Your task to perform on an android device: Search for Mexican restaurants on Maps Image 0: 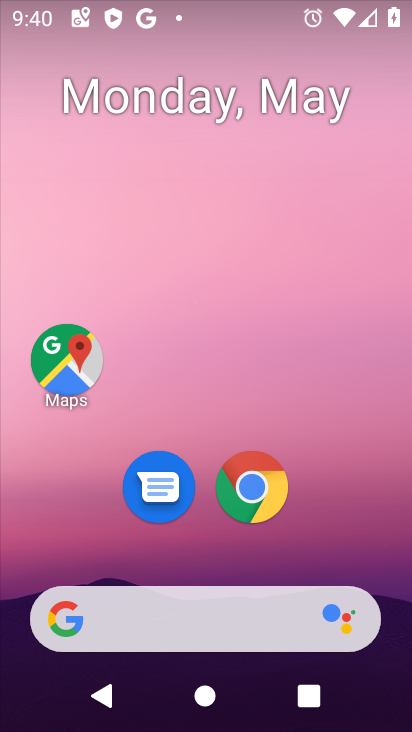
Step 0: click (74, 369)
Your task to perform on an android device: Search for Mexican restaurants on Maps Image 1: 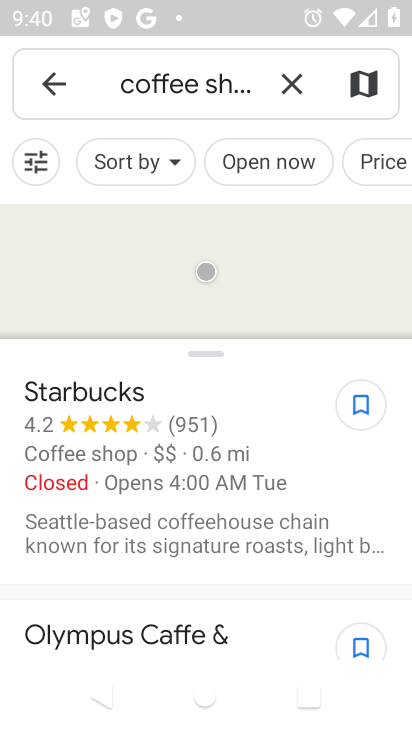
Step 1: click (289, 80)
Your task to perform on an android device: Search for Mexican restaurants on Maps Image 2: 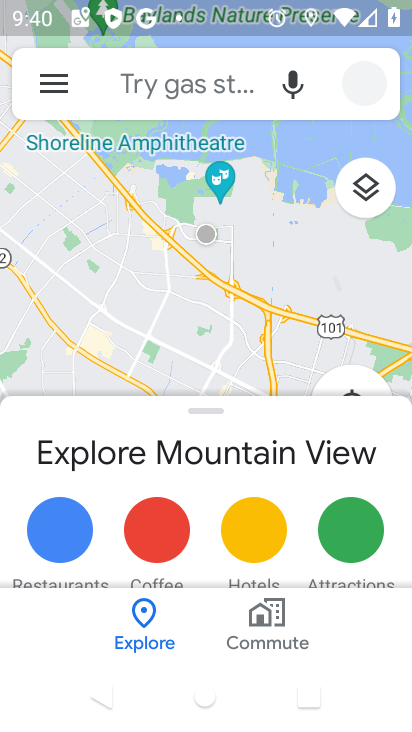
Step 2: click (194, 90)
Your task to perform on an android device: Search for Mexican restaurants on Maps Image 3: 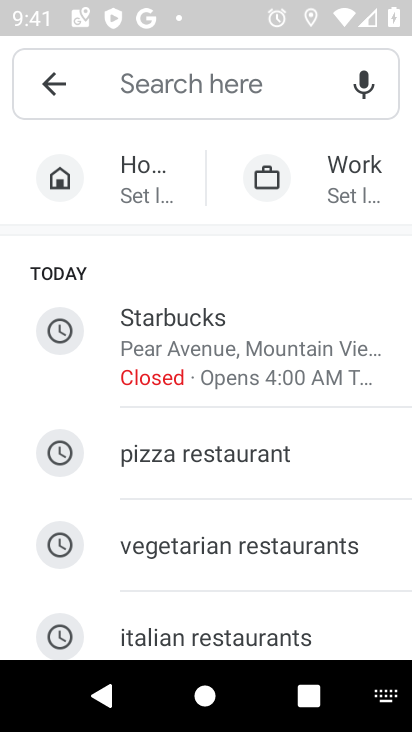
Step 3: type "mexicam restaurant"
Your task to perform on an android device: Search for Mexican restaurants on Maps Image 4: 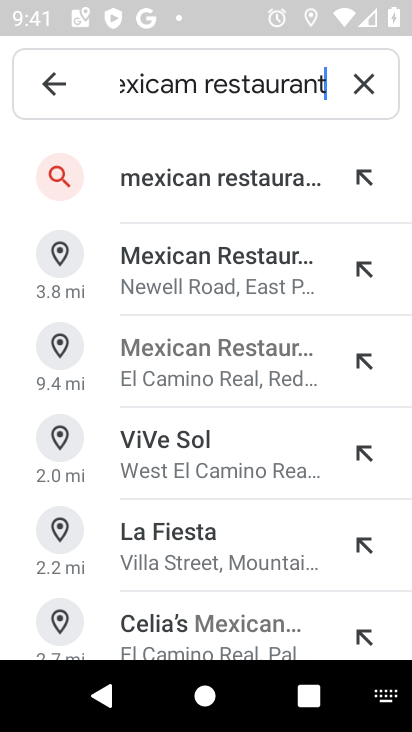
Step 4: click (198, 193)
Your task to perform on an android device: Search for Mexican restaurants on Maps Image 5: 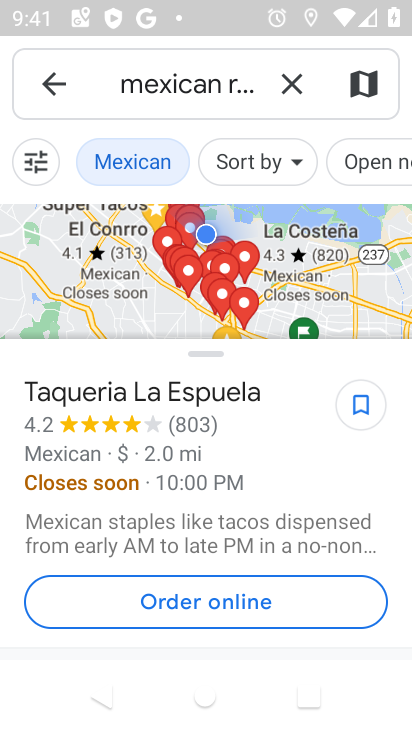
Step 5: task complete